Your task to perform on an android device: empty trash in the gmail app Image 0: 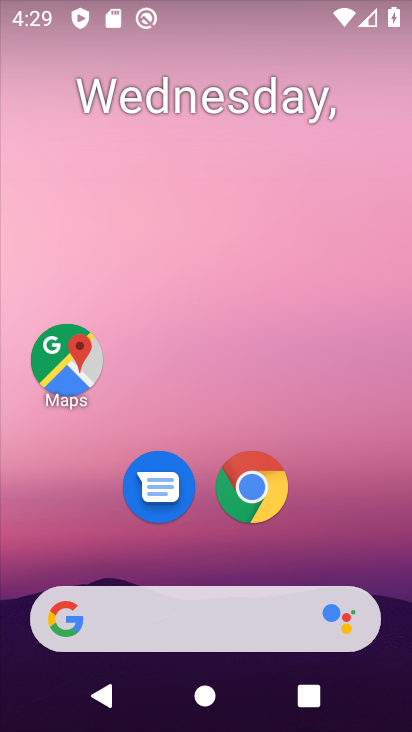
Step 0: drag from (335, 473) to (209, 13)
Your task to perform on an android device: empty trash in the gmail app Image 1: 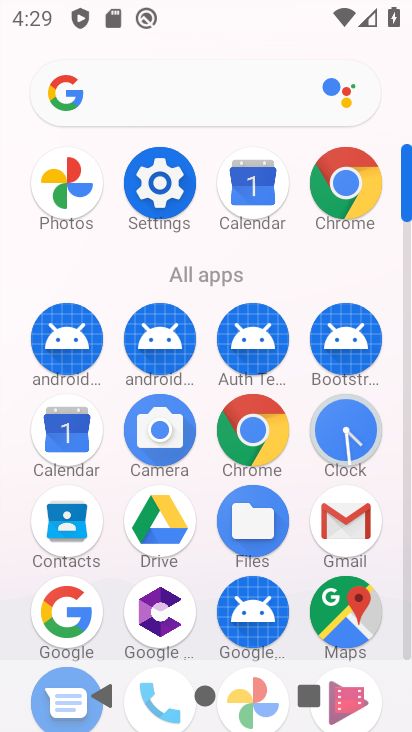
Step 1: click (359, 509)
Your task to perform on an android device: empty trash in the gmail app Image 2: 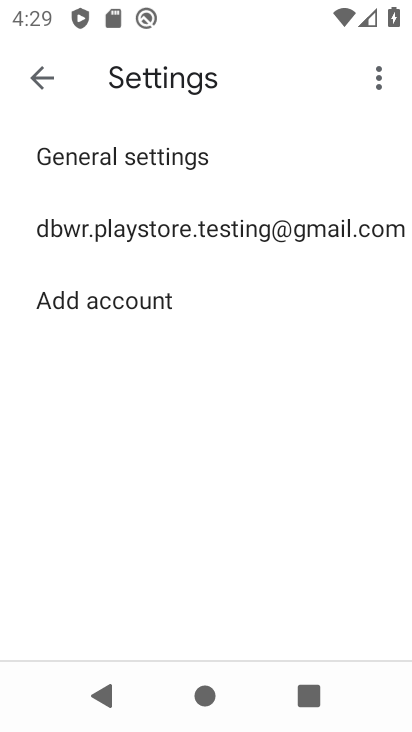
Step 2: click (52, 79)
Your task to perform on an android device: empty trash in the gmail app Image 3: 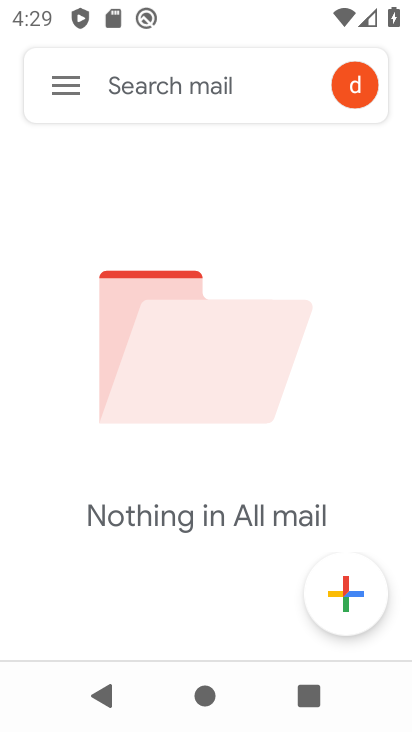
Step 3: click (51, 80)
Your task to perform on an android device: empty trash in the gmail app Image 4: 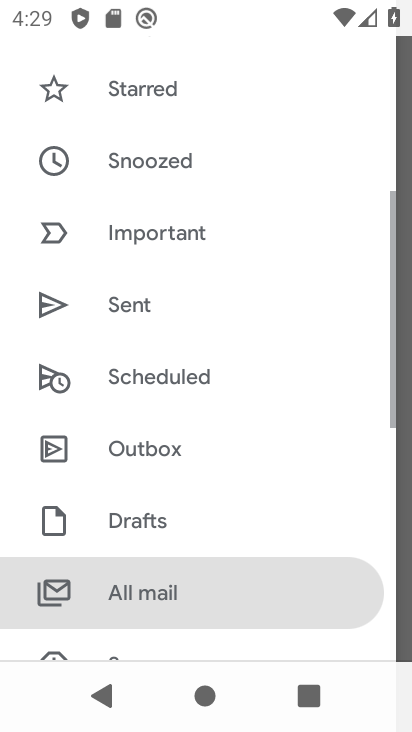
Step 4: drag from (148, 541) to (180, 10)
Your task to perform on an android device: empty trash in the gmail app Image 5: 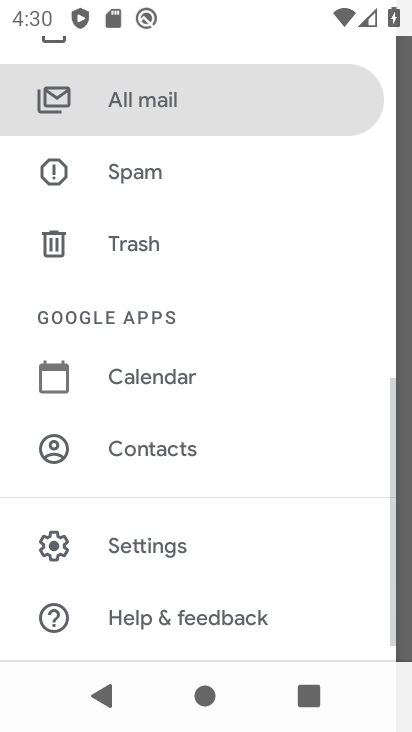
Step 5: click (120, 241)
Your task to perform on an android device: empty trash in the gmail app Image 6: 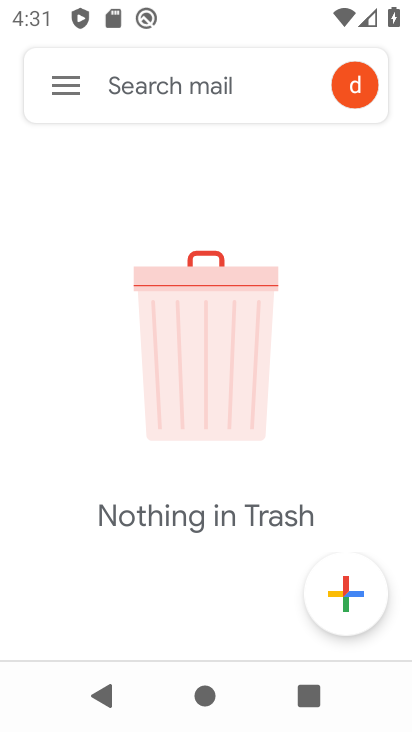
Step 6: task complete